Your task to perform on an android device: Open Google Chrome and open the bookmarks view Image 0: 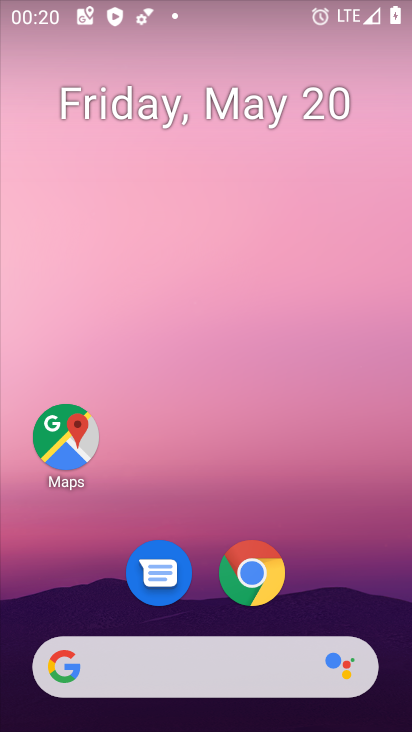
Step 0: click (248, 566)
Your task to perform on an android device: Open Google Chrome and open the bookmarks view Image 1: 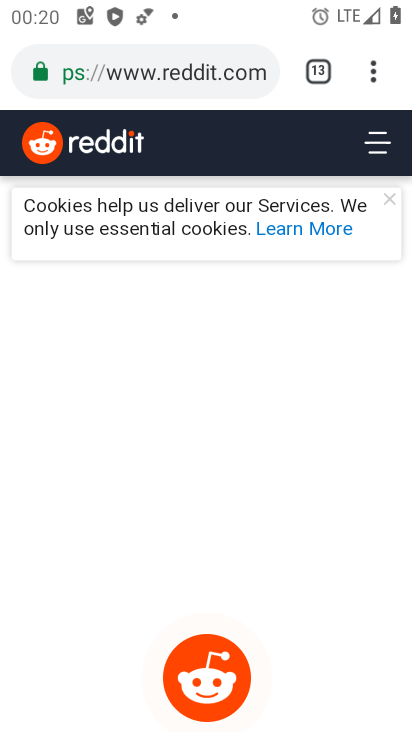
Step 1: click (373, 76)
Your task to perform on an android device: Open Google Chrome and open the bookmarks view Image 2: 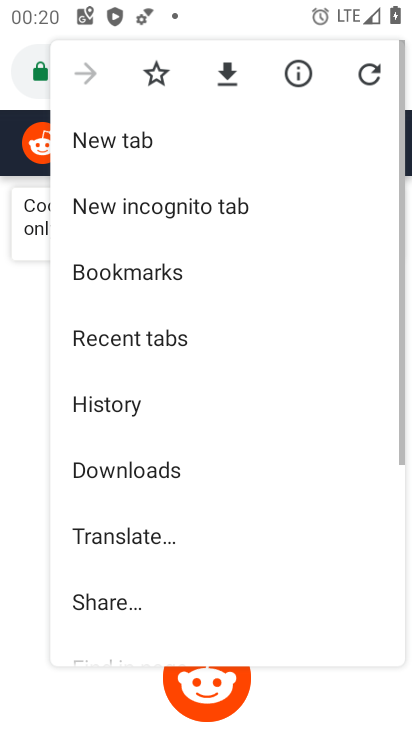
Step 2: click (153, 284)
Your task to perform on an android device: Open Google Chrome and open the bookmarks view Image 3: 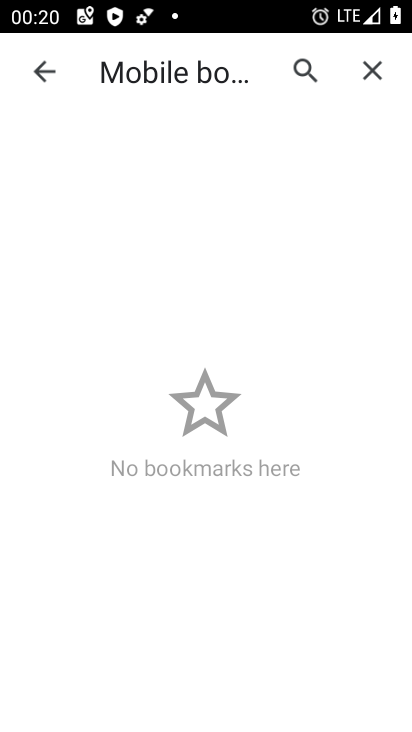
Step 3: task complete